Your task to perform on an android device: change notification settings in the gmail app Image 0: 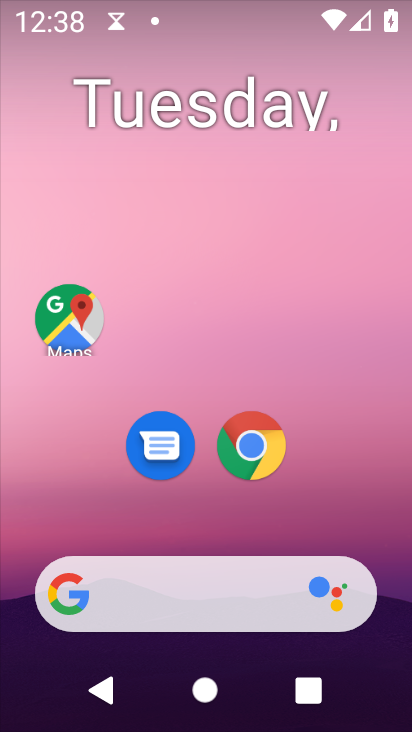
Step 0: drag from (173, 662) to (262, 0)
Your task to perform on an android device: change notification settings in the gmail app Image 1: 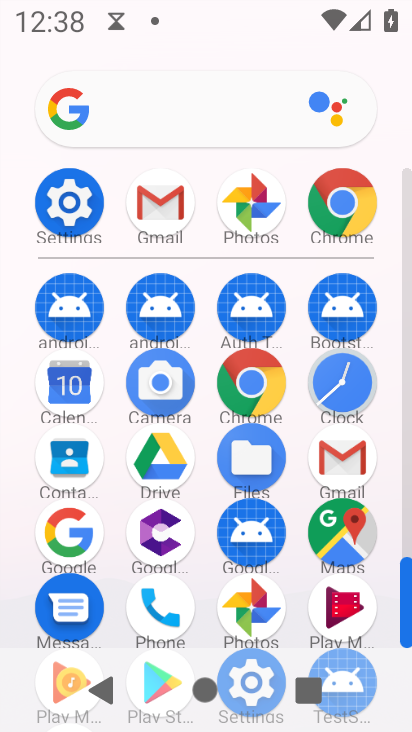
Step 1: click (327, 462)
Your task to perform on an android device: change notification settings in the gmail app Image 2: 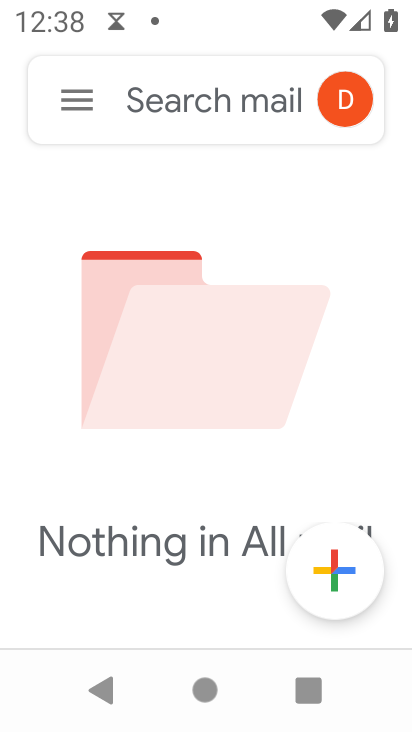
Step 2: click (81, 103)
Your task to perform on an android device: change notification settings in the gmail app Image 3: 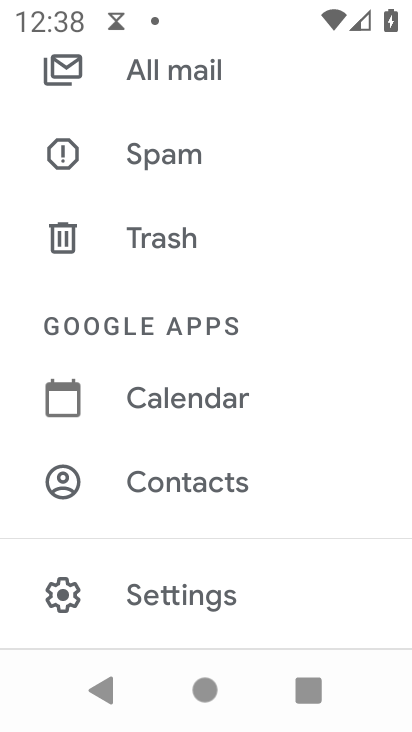
Step 3: drag from (255, 126) to (262, 643)
Your task to perform on an android device: change notification settings in the gmail app Image 4: 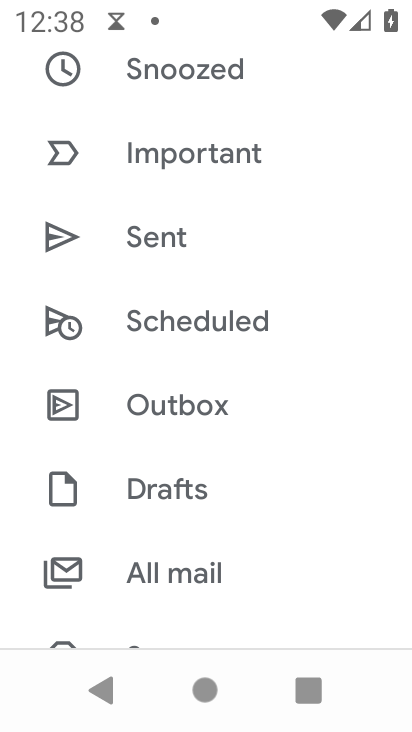
Step 4: drag from (239, 220) to (227, 59)
Your task to perform on an android device: change notification settings in the gmail app Image 5: 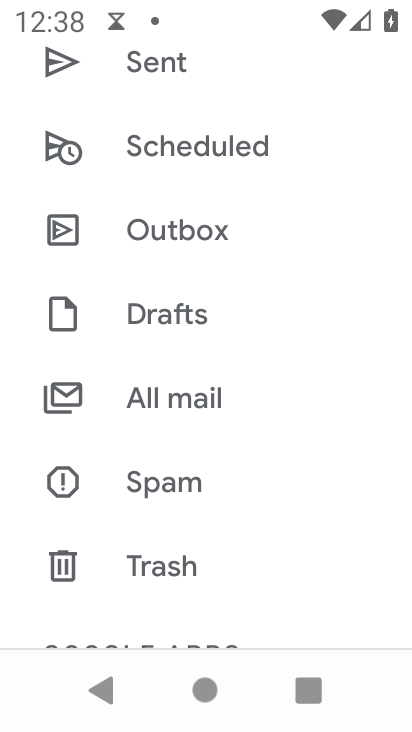
Step 5: drag from (302, 599) to (279, 205)
Your task to perform on an android device: change notification settings in the gmail app Image 6: 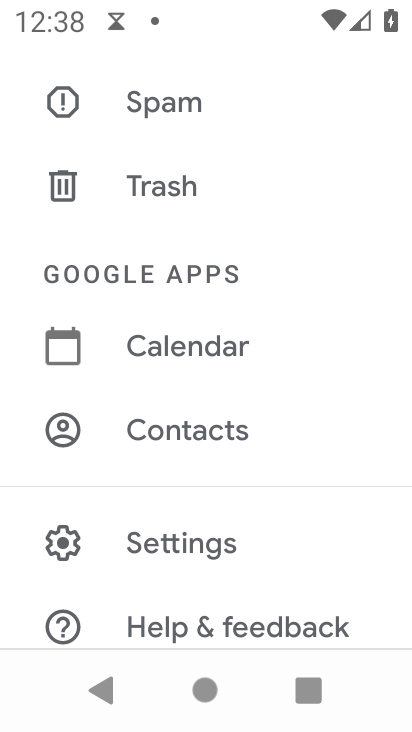
Step 6: click (201, 543)
Your task to perform on an android device: change notification settings in the gmail app Image 7: 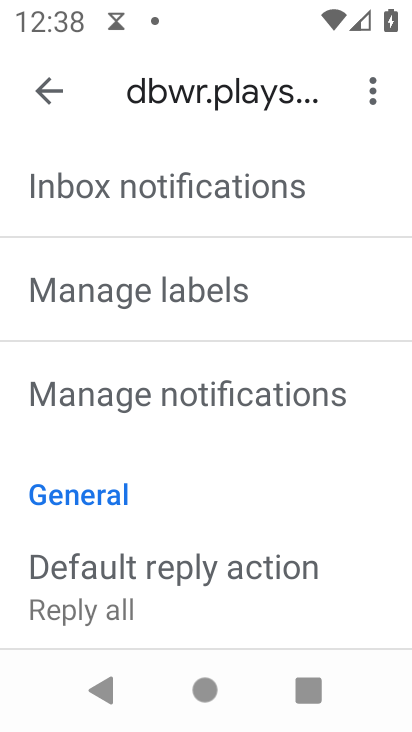
Step 7: click (214, 377)
Your task to perform on an android device: change notification settings in the gmail app Image 8: 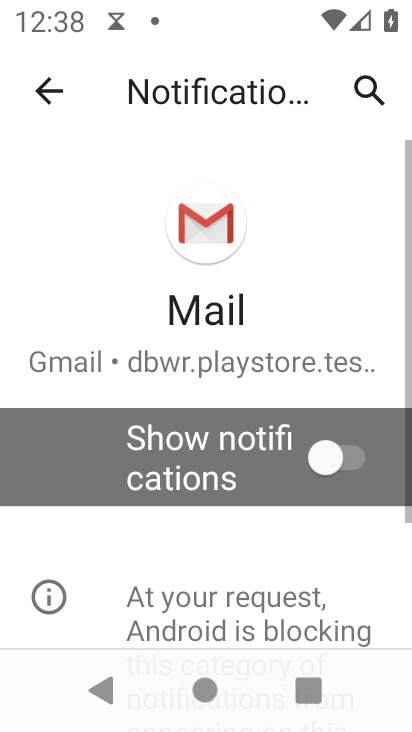
Step 8: drag from (289, 556) to (257, 223)
Your task to perform on an android device: change notification settings in the gmail app Image 9: 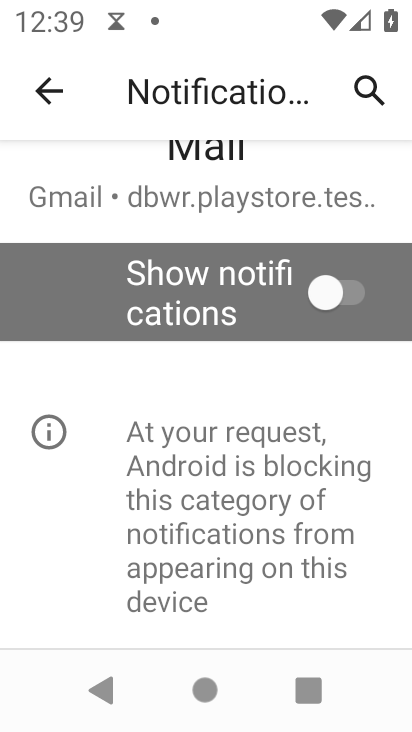
Step 9: click (355, 294)
Your task to perform on an android device: change notification settings in the gmail app Image 10: 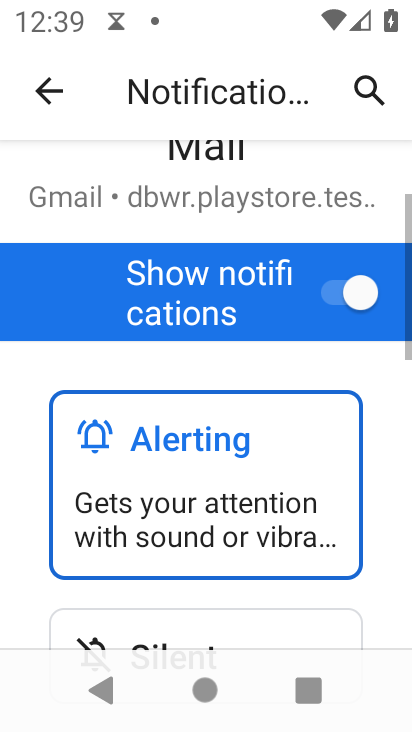
Step 10: task complete